Your task to perform on an android device: turn smart compose on in the gmail app Image 0: 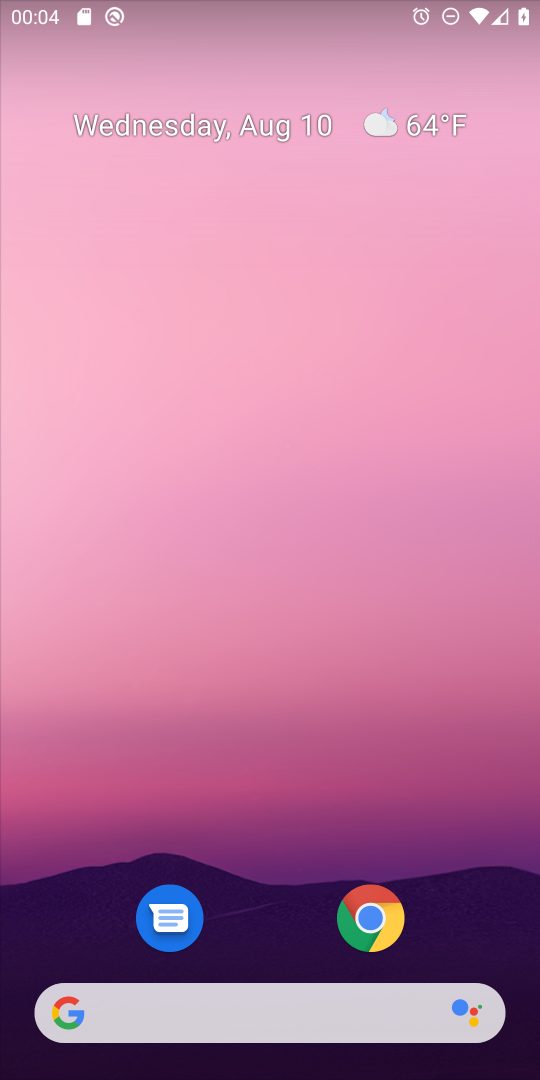
Step 0: drag from (271, 725) to (286, 257)
Your task to perform on an android device: turn smart compose on in the gmail app Image 1: 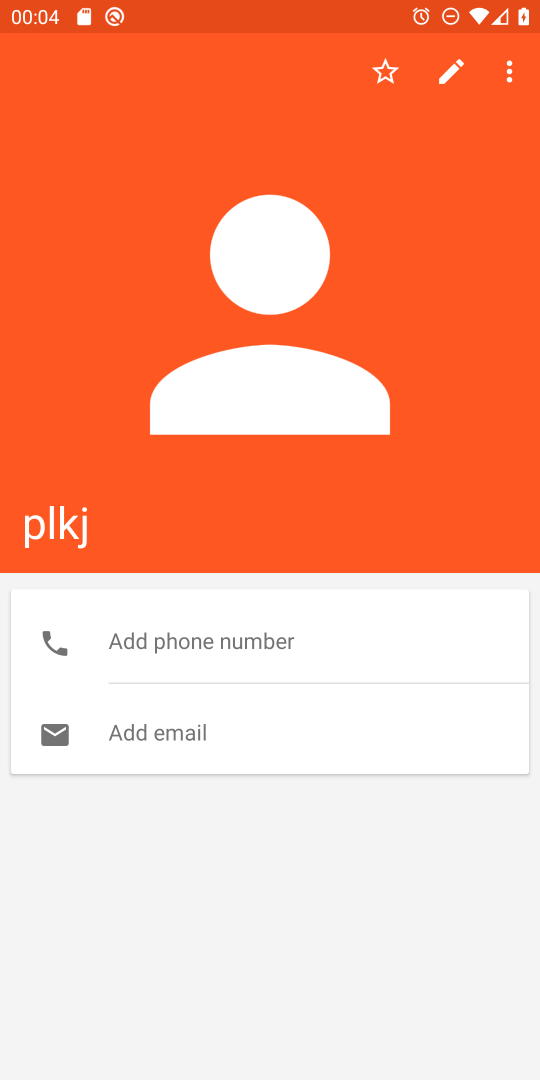
Step 1: press home button
Your task to perform on an android device: turn smart compose on in the gmail app Image 2: 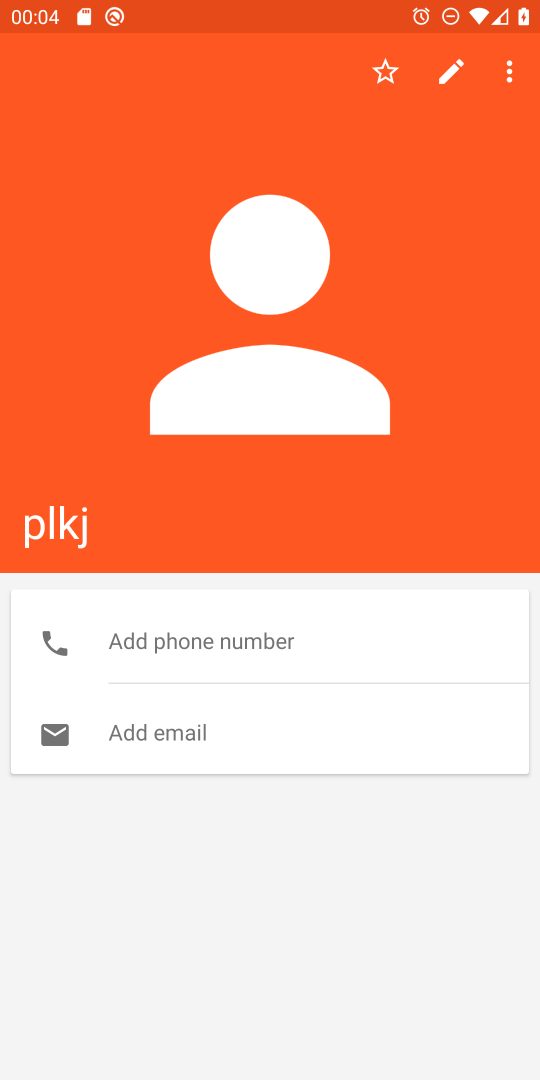
Step 2: press home button
Your task to perform on an android device: turn smart compose on in the gmail app Image 3: 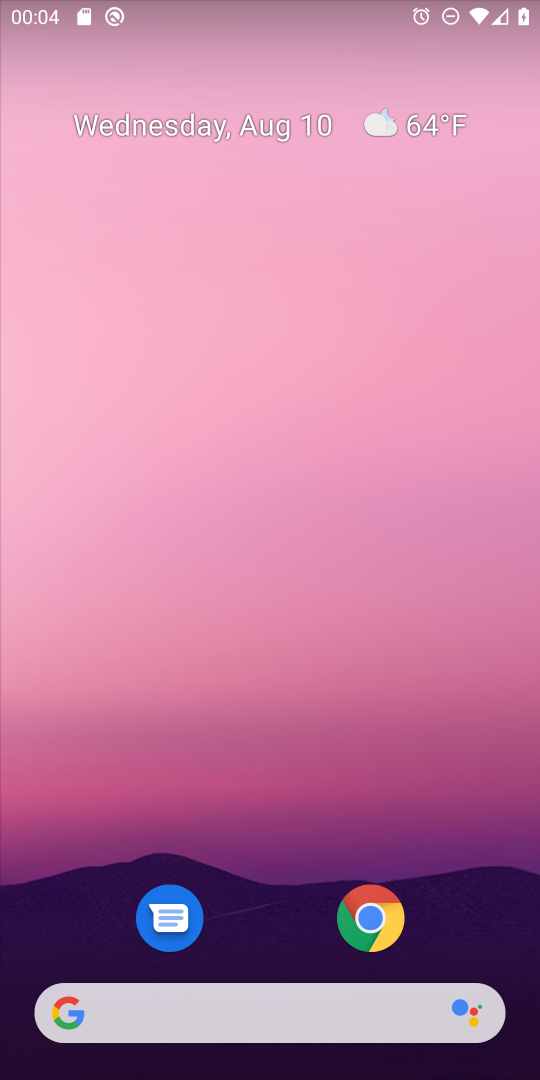
Step 3: drag from (228, 921) to (264, 137)
Your task to perform on an android device: turn smart compose on in the gmail app Image 4: 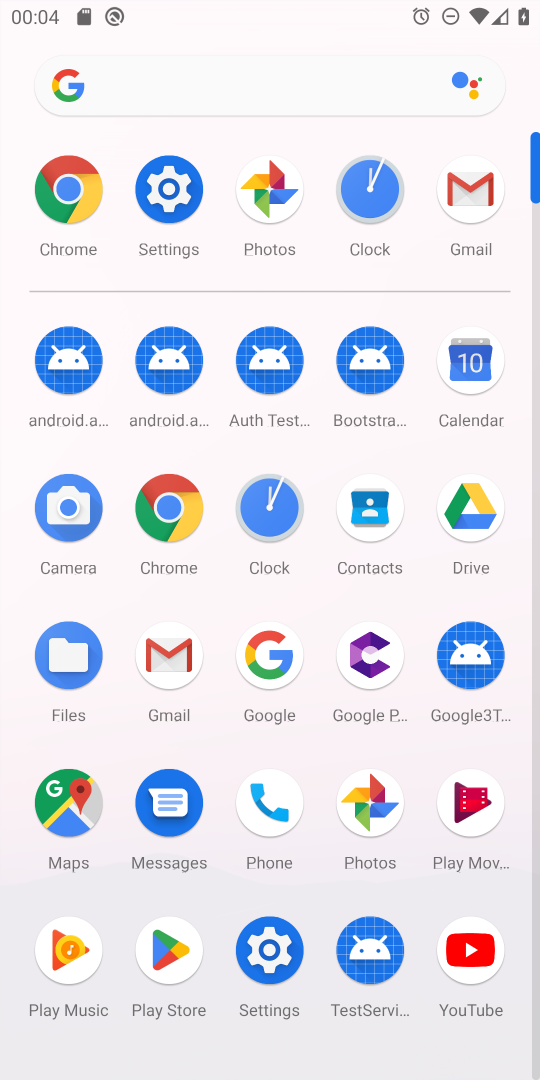
Step 4: click (174, 651)
Your task to perform on an android device: turn smart compose on in the gmail app Image 5: 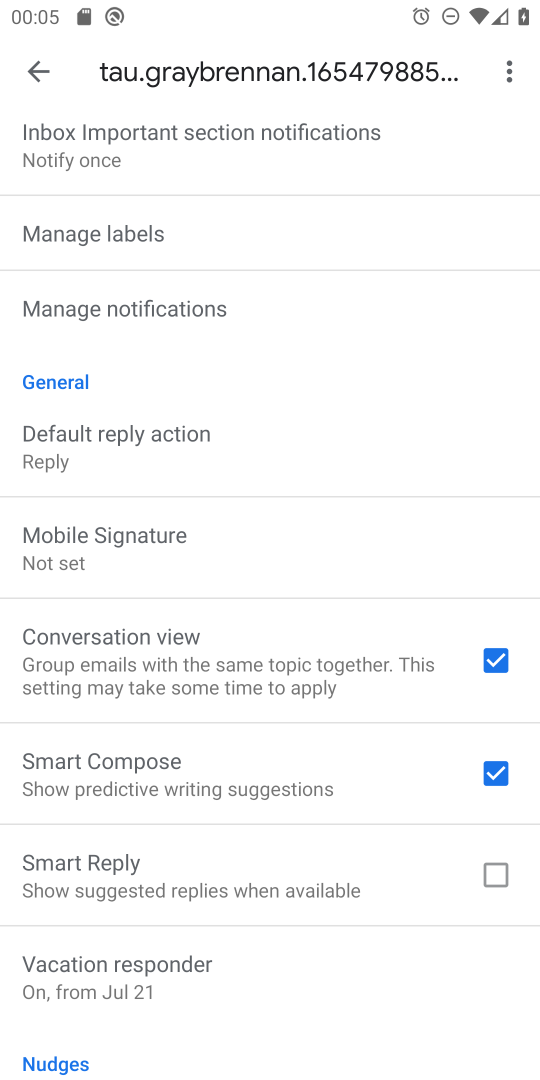
Step 5: task complete